Your task to perform on an android device: Go to display settings Image 0: 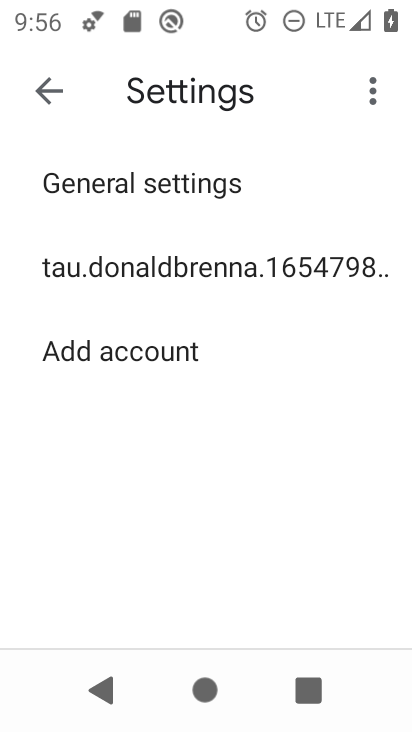
Step 0: press home button
Your task to perform on an android device: Go to display settings Image 1: 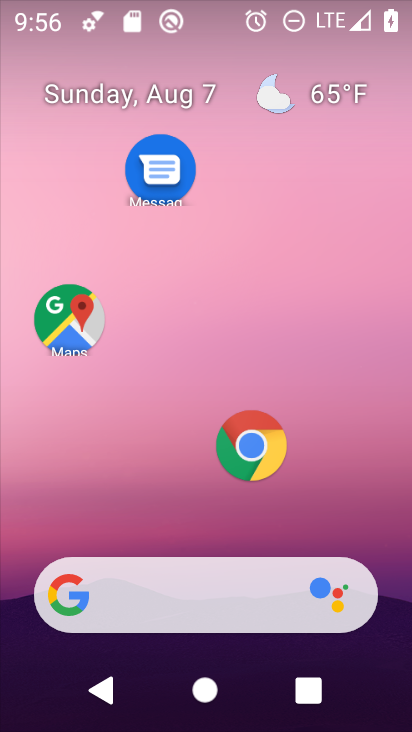
Step 1: drag from (194, 530) to (242, 29)
Your task to perform on an android device: Go to display settings Image 2: 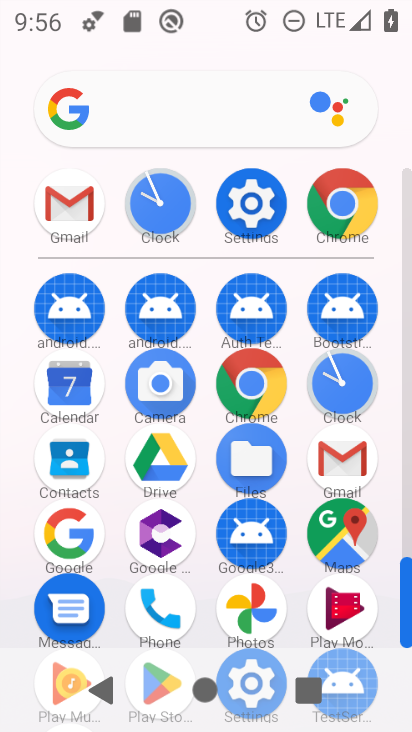
Step 2: click (243, 197)
Your task to perform on an android device: Go to display settings Image 3: 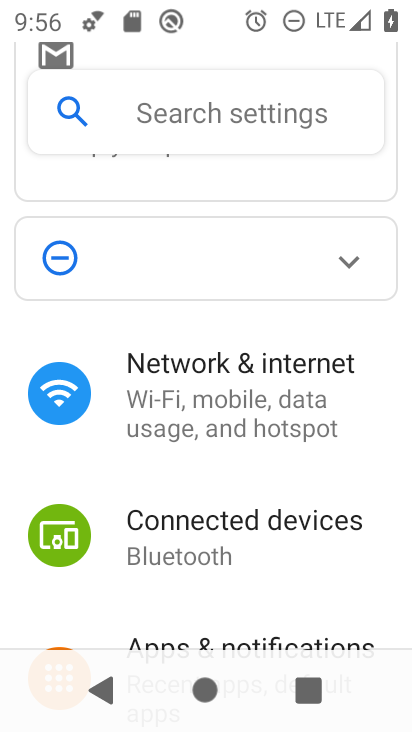
Step 3: drag from (223, 597) to (267, 281)
Your task to perform on an android device: Go to display settings Image 4: 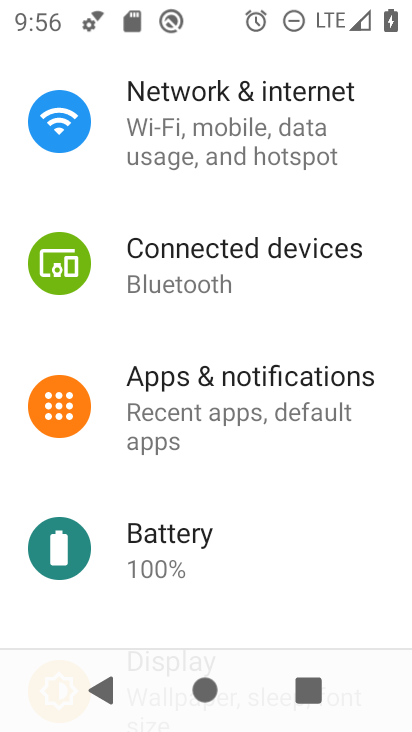
Step 4: drag from (210, 600) to (241, 295)
Your task to perform on an android device: Go to display settings Image 5: 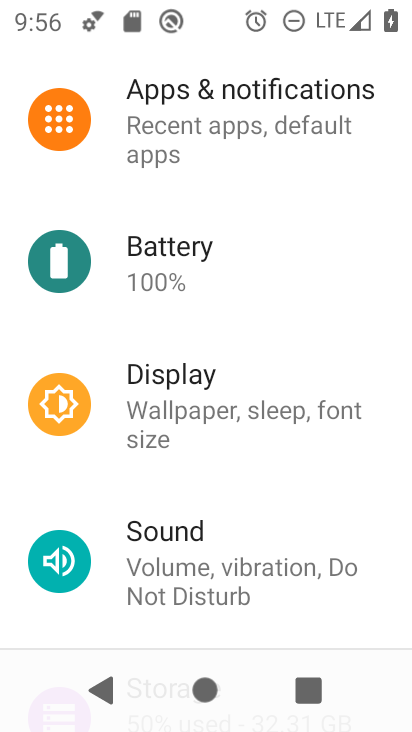
Step 5: click (225, 372)
Your task to perform on an android device: Go to display settings Image 6: 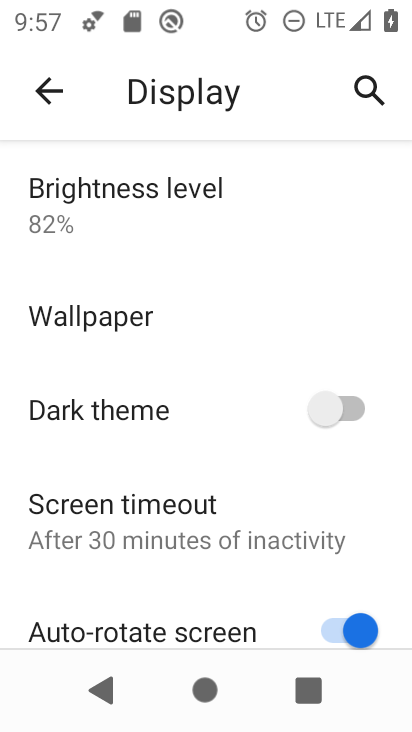
Step 6: task complete